Your task to perform on an android device: Open calendar and show me the first week of next month Image 0: 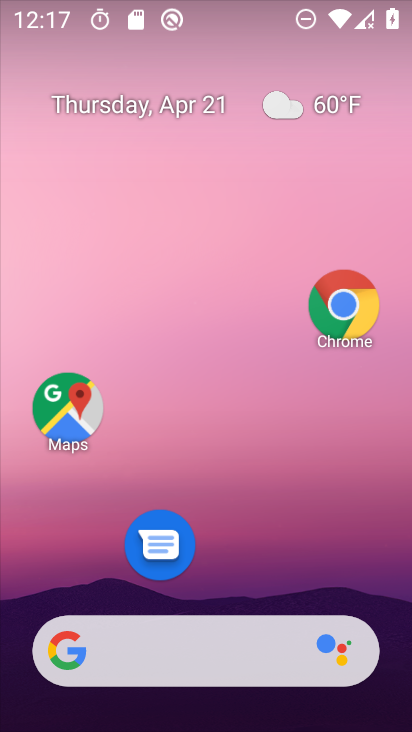
Step 0: drag from (223, 613) to (264, 86)
Your task to perform on an android device: Open calendar and show me the first week of next month Image 1: 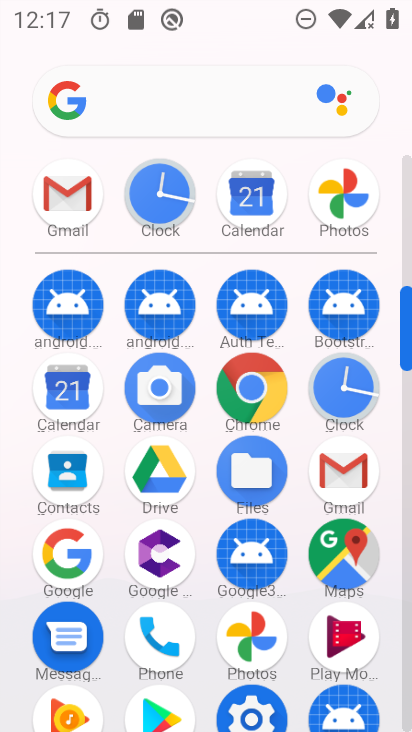
Step 1: click (407, 548)
Your task to perform on an android device: Open calendar and show me the first week of next month Image 2: 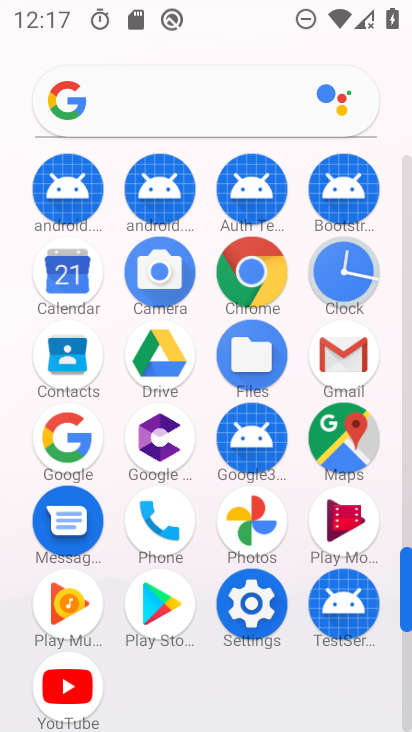
Step 2: click (81, 282)
Your task to perform on an android device: Open calendar and show me the first week of next month Image 3: 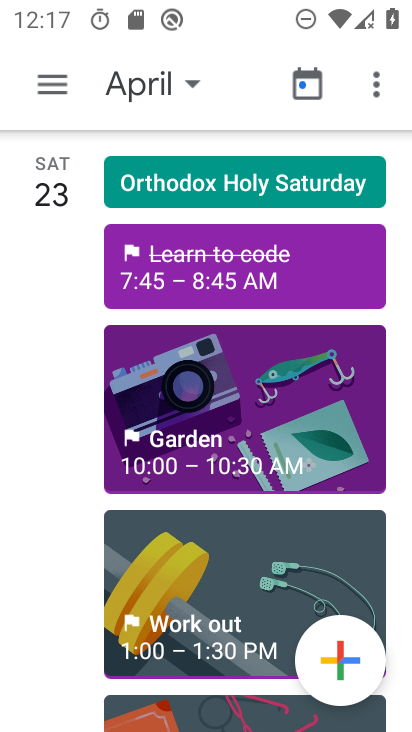
Step 3: click (187, 86)
Your task to perform on an android device: Open calendar and show me the first week of next month Image 4: 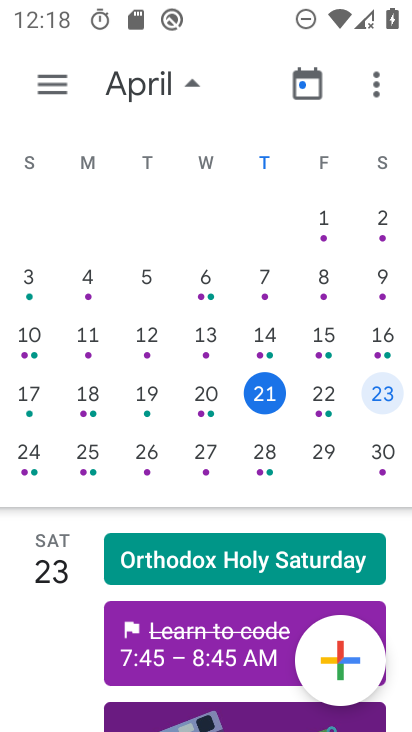
Step 4: task complete